Your task to perform on an android device: turn off location Image 0: 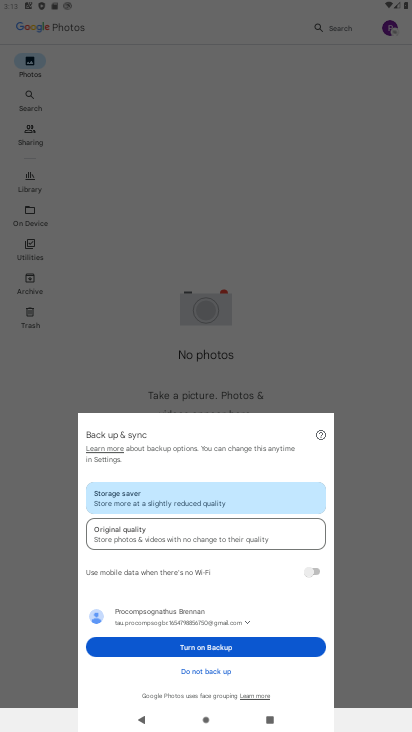
Step 0: press home button
Your task to perform on an android device: turn off location Image 1: 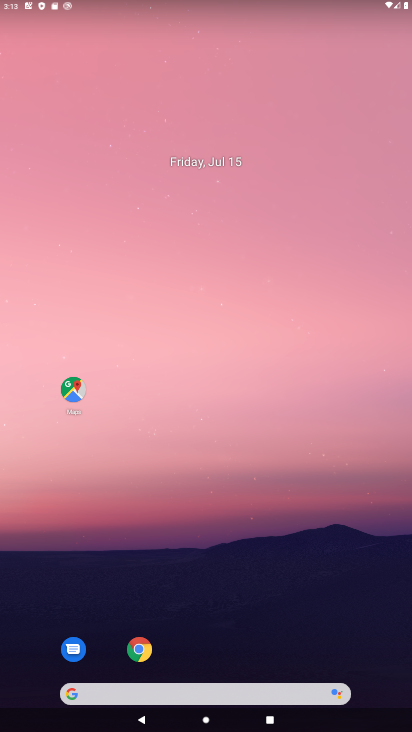
Step 1: drag from (202, 598) to (185, 17)
Your task to perform on an android device: turn off location Image 2: 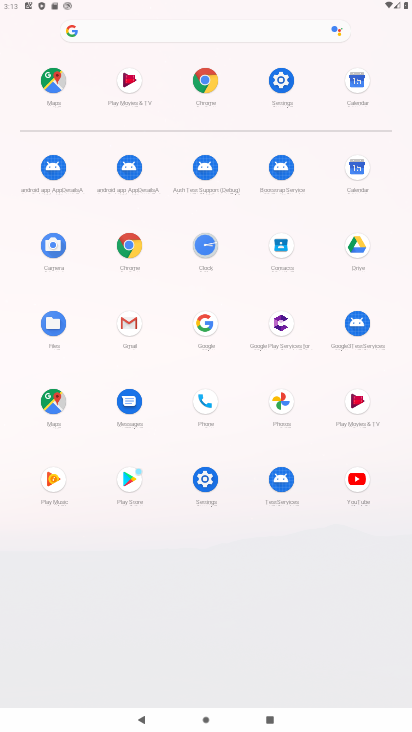
Step 2: click (277, 78)
Your task to perform on an android device: turn off location Image 3: 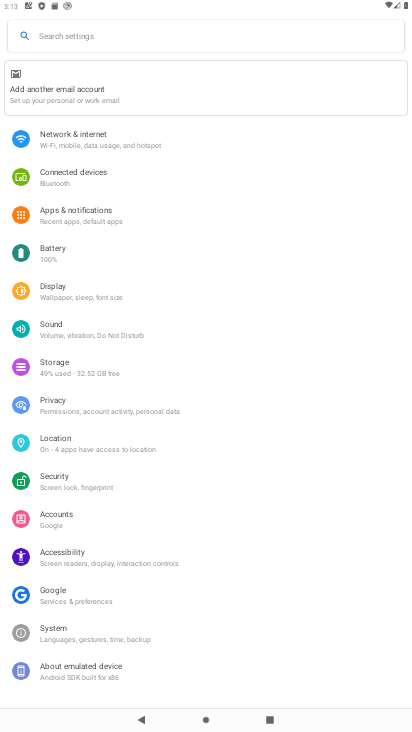
Step 3: click (78, 447)
Your task to perform on an android device: turn off location Image 4: 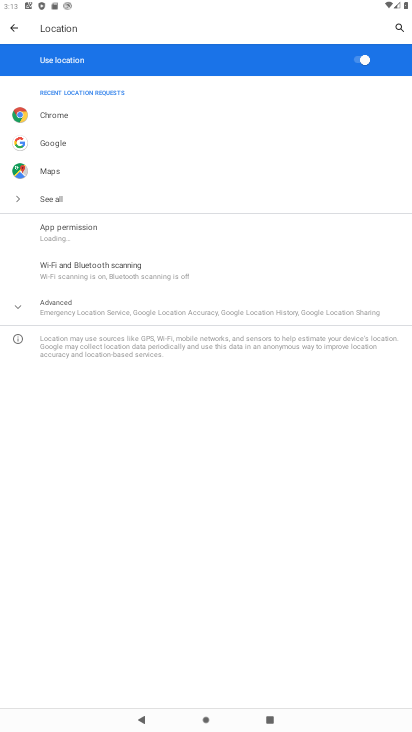
Step 4: click (363, 57)
Your task to perform on an android device: turn off location Image 5: 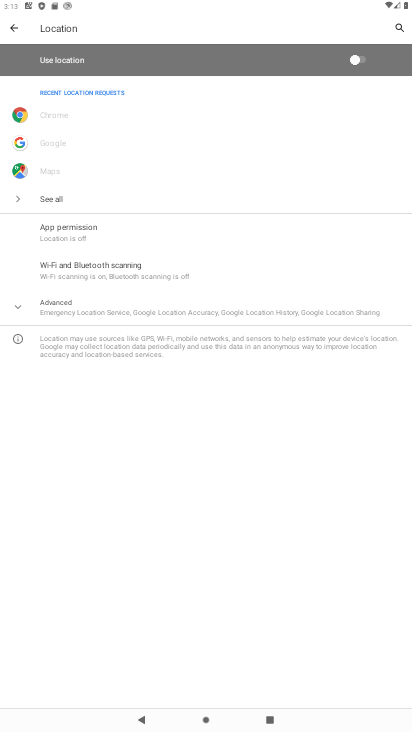
Step 5: task complete